Your task to perform on an android device: Go to display settings Image 0: 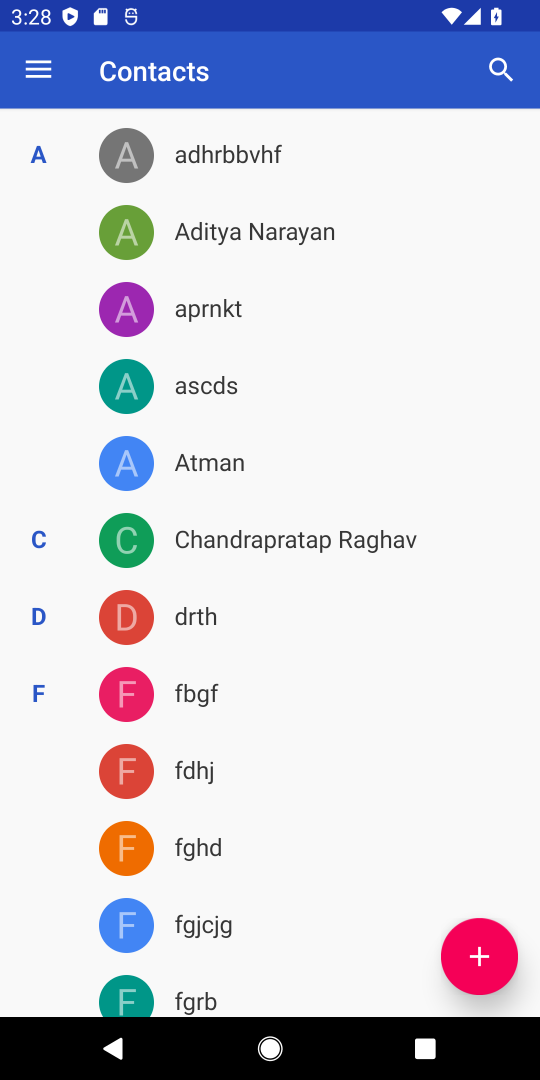
Step 0: press home button
Your task to perform on an android device: Go to display settings Image 1: 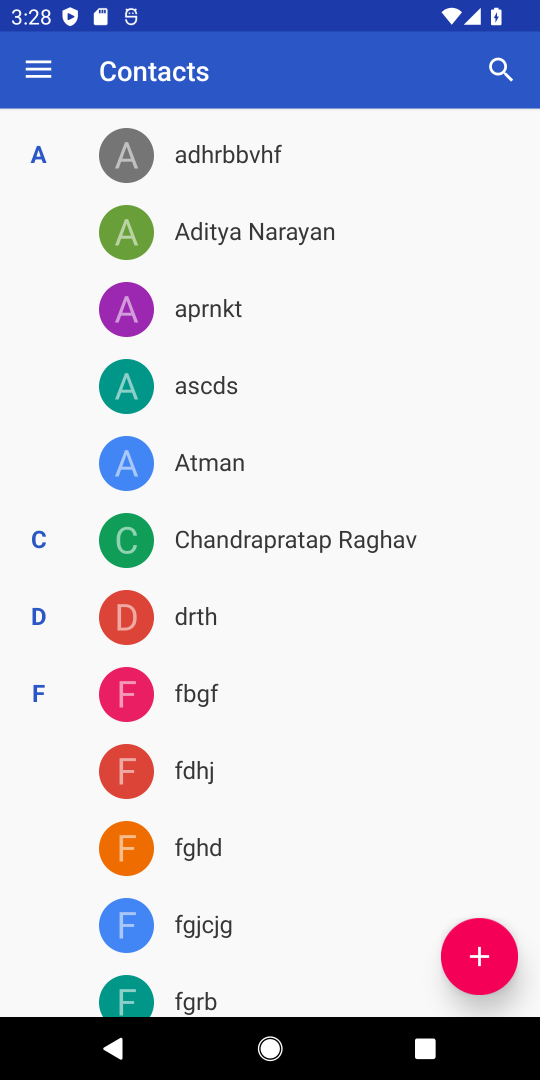
Step 1: press home button
Your task to perform on an android device: Go to display settings Image 2: 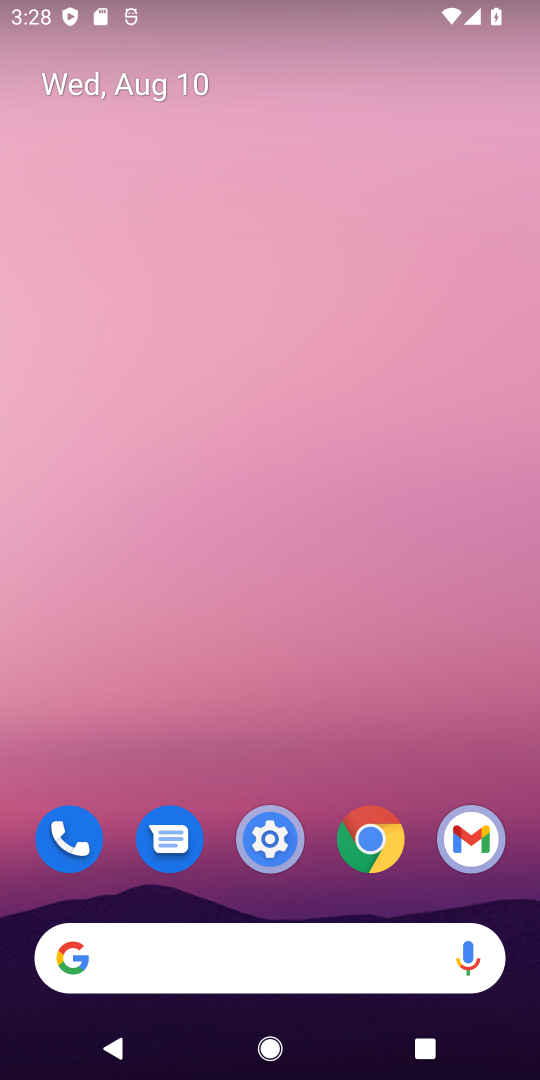
Step 2: click (270, 840)
Your task to perform on an android device: Go to display settings Image 3: 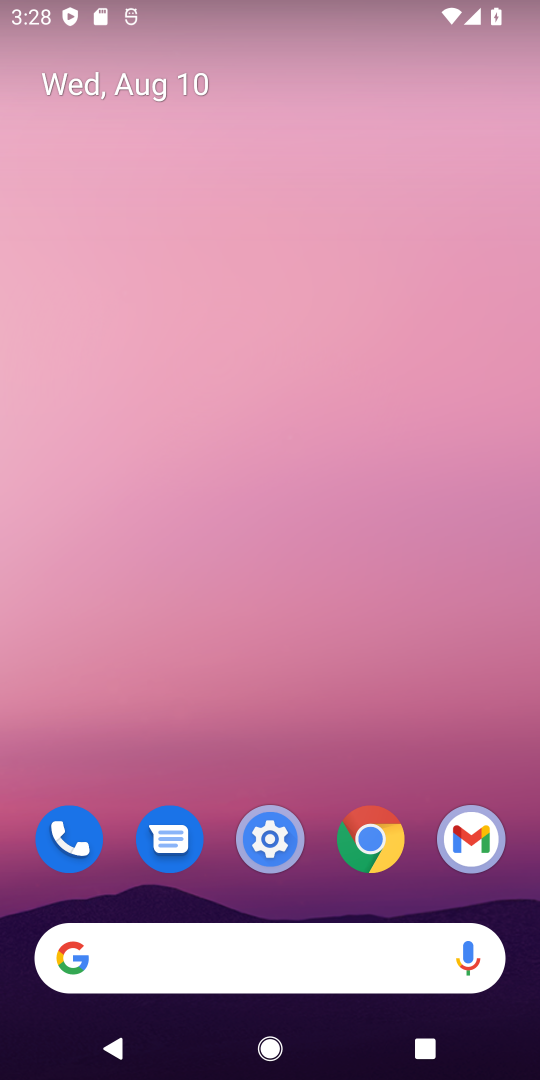
Step 3: click (270, 840)
Your task to perform on an android device: Go to display settings Image 4: 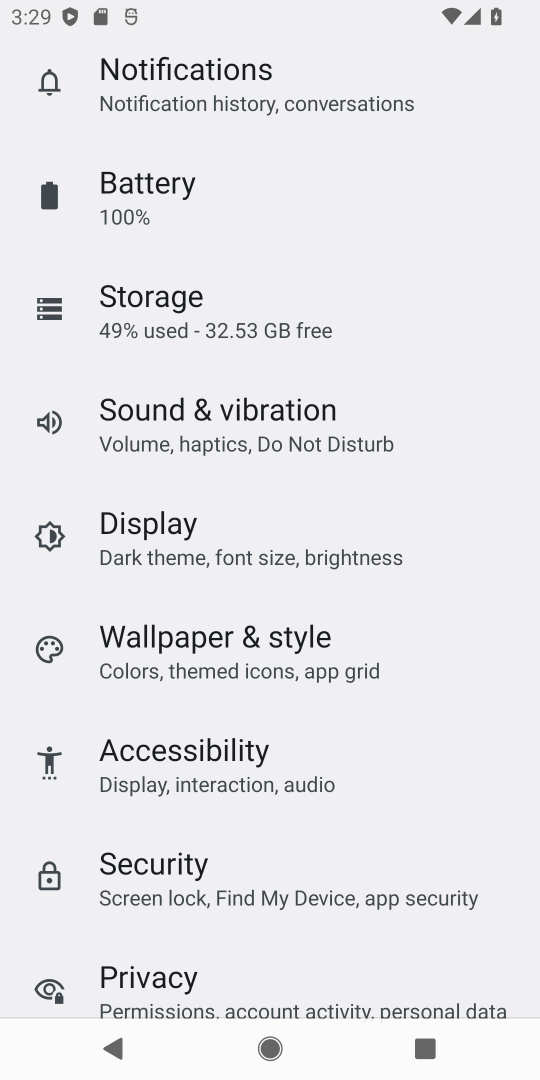
Step 4: click (274, 527)
Your task to perform on an android device: Go to display settings Image 5: 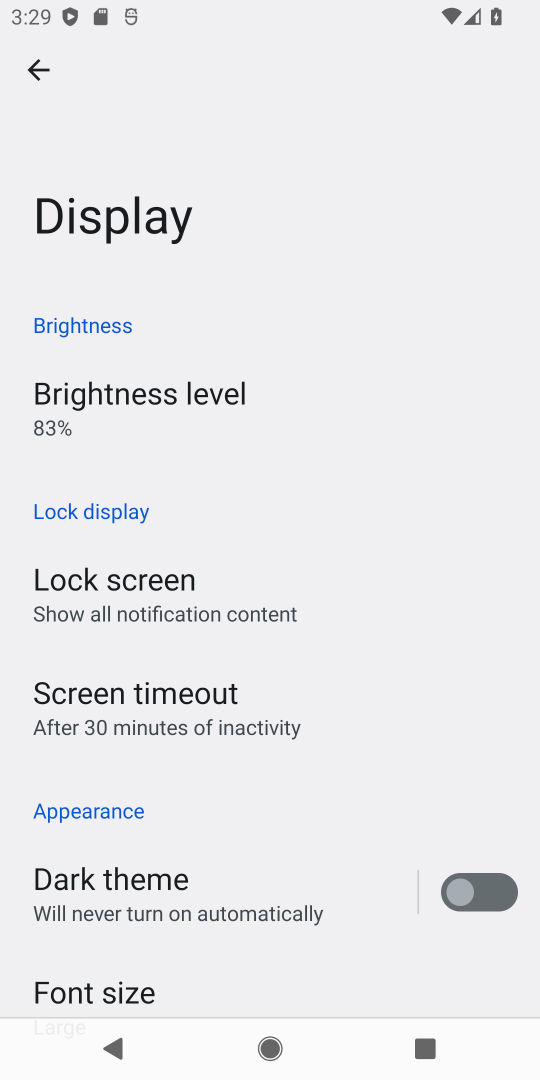
Step 5: task complete